Your task to perform on an android device: toggle improve location accuracy Image 0: 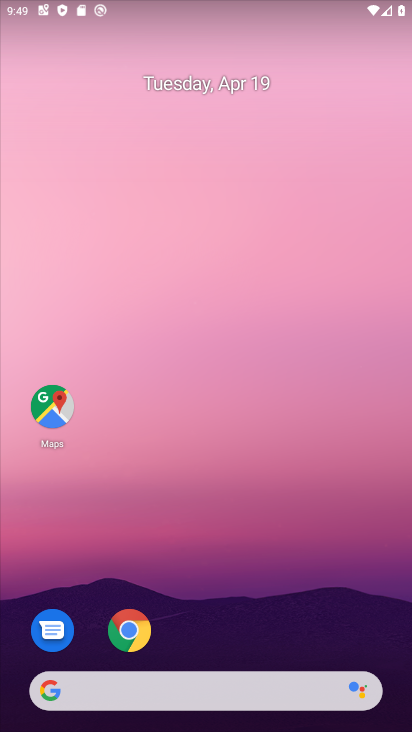
Step 0: drag from (260, 585) to (175, 56)
Your task to perform on an android device: toggle improve location accuracy Image 1: 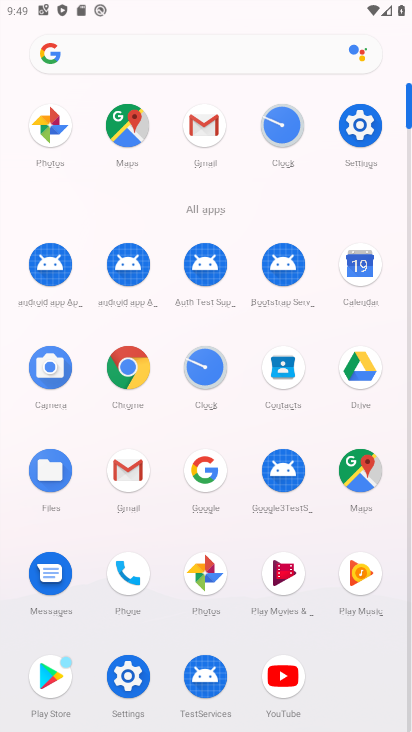
Step 1: click (360, 127)
Your task to perform on an android device: toggle improve location accuracy Image 2: 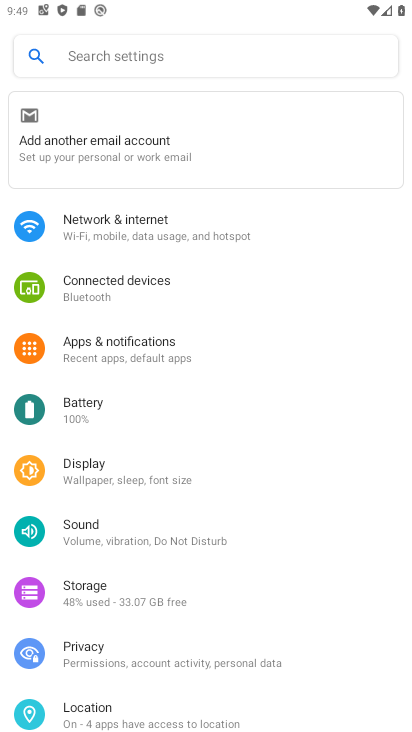
Step 2: click (85, 709)
Your task to perform on an android device: toggle improve location accuracy Image 3: 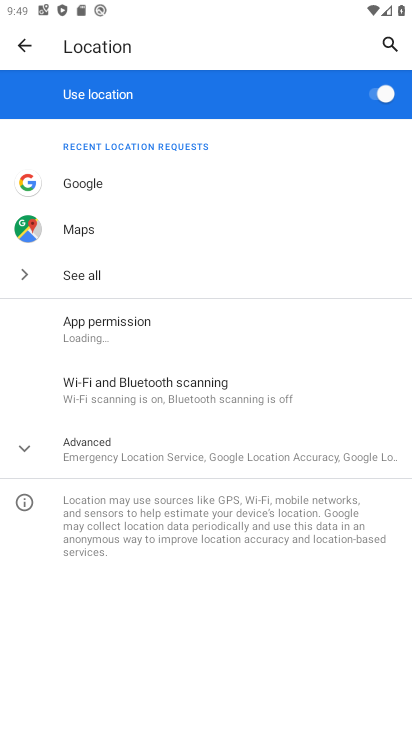
Step 3: click (152, 455)
Your task to perform on an android device: toggle improve location accuracy Image 4: 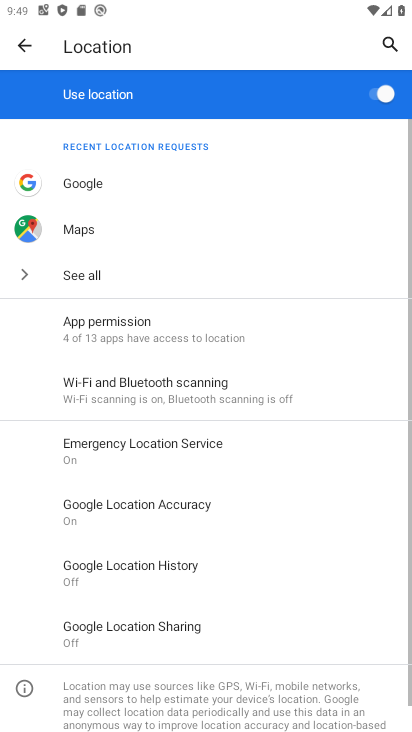
Step 4: click (131, 512)
Your task to perform on an android device: toggle improve location accuracy Image 5: 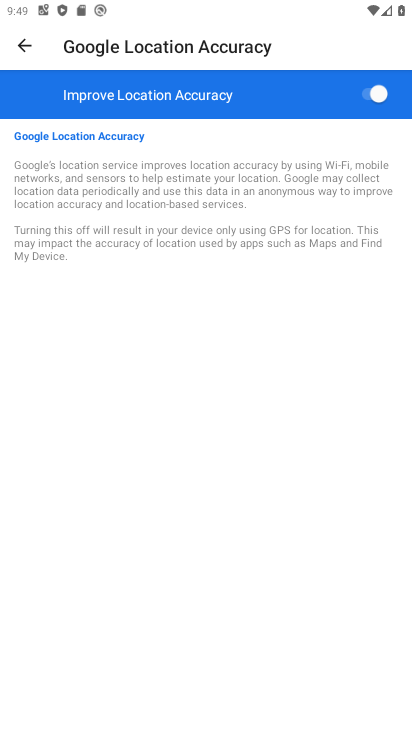
Step 5: click (379, 89)
Your task to perform on an android device: toggle improve location accuracy Image 6: 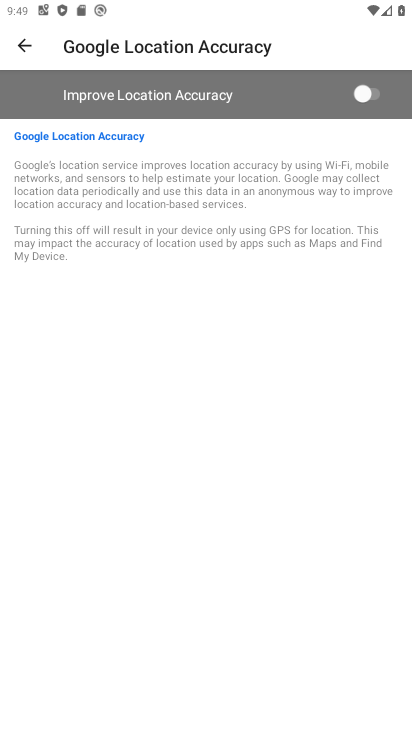
Step 6: task complete